Your task to perform on an android device: toggle wifi Image 0: 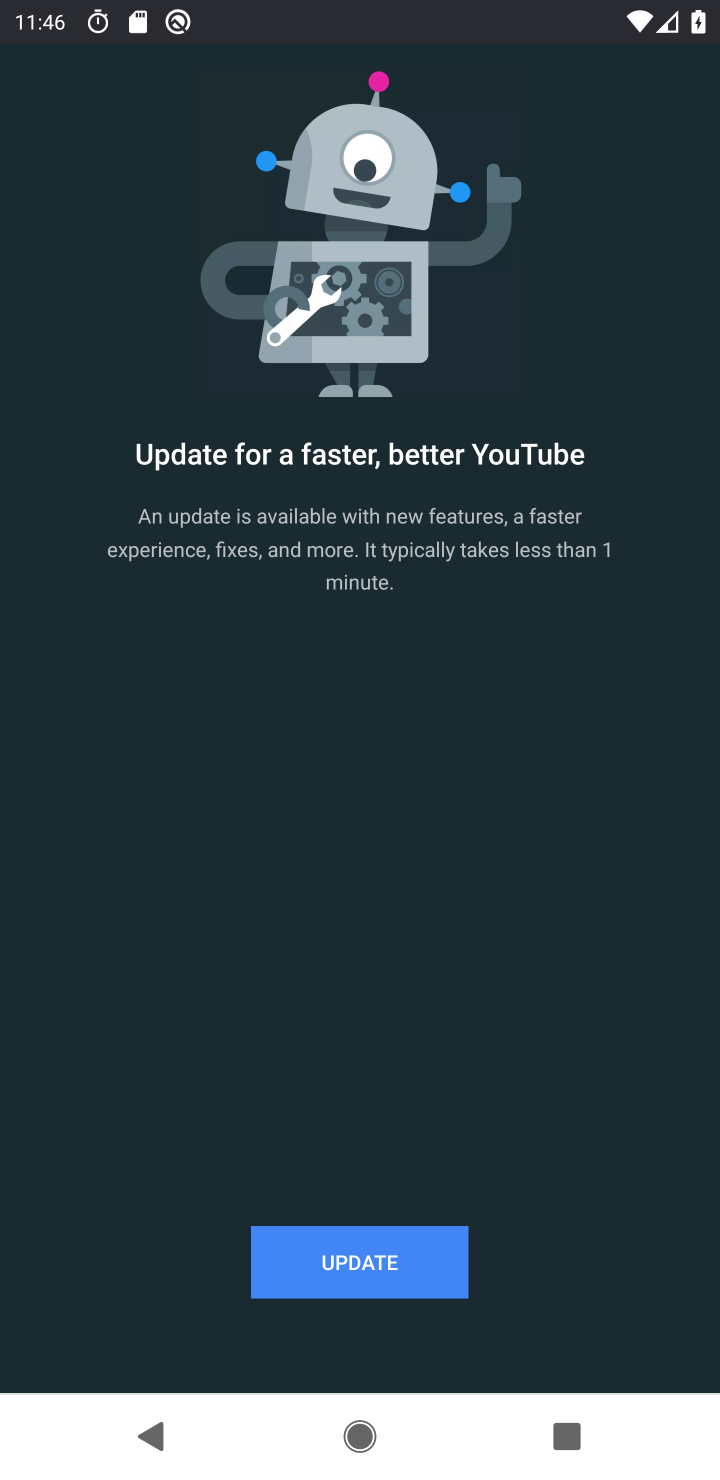
Step 0: press home button
Your task to perform on an android device: toggle wifi Image 1: 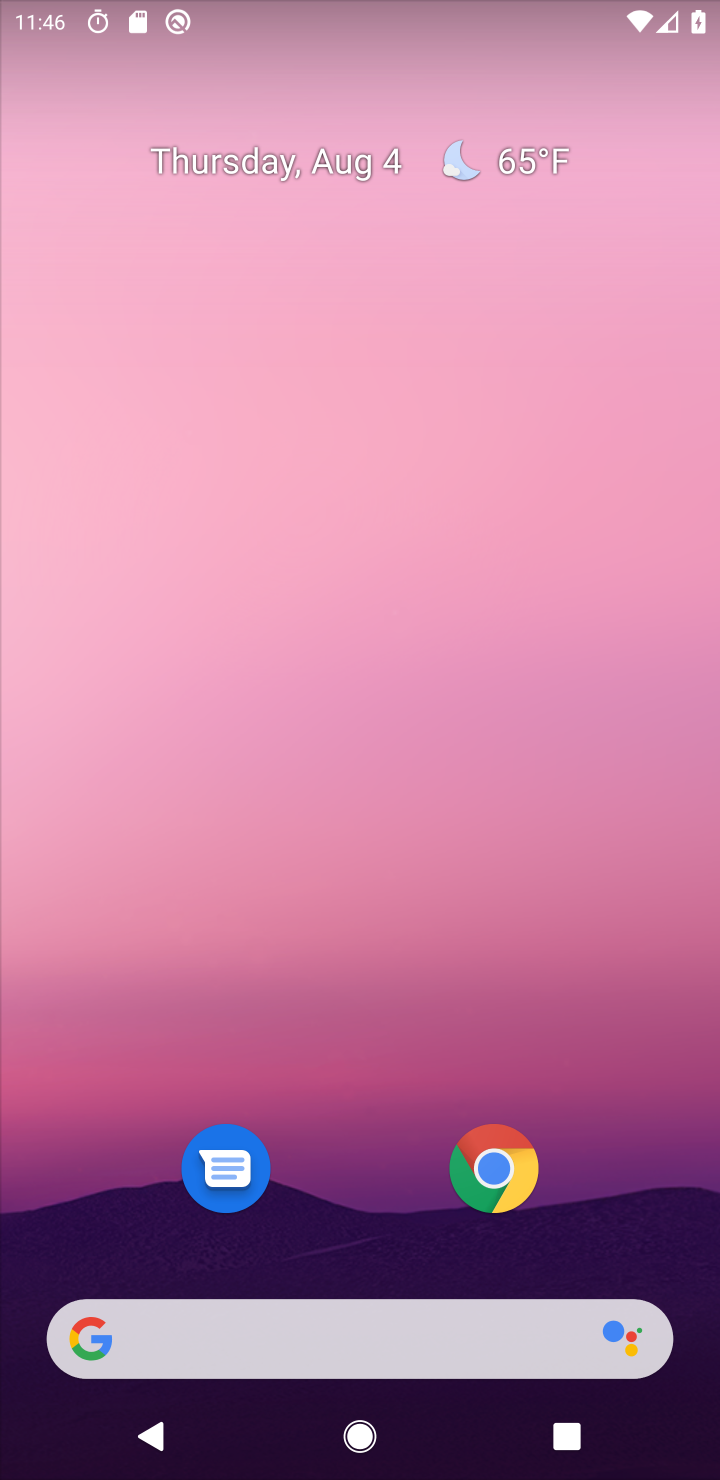
Step 1: drag from (358, 1225) to (407, 0)
Your task to perform on an android device: toggle wifi Image 2: 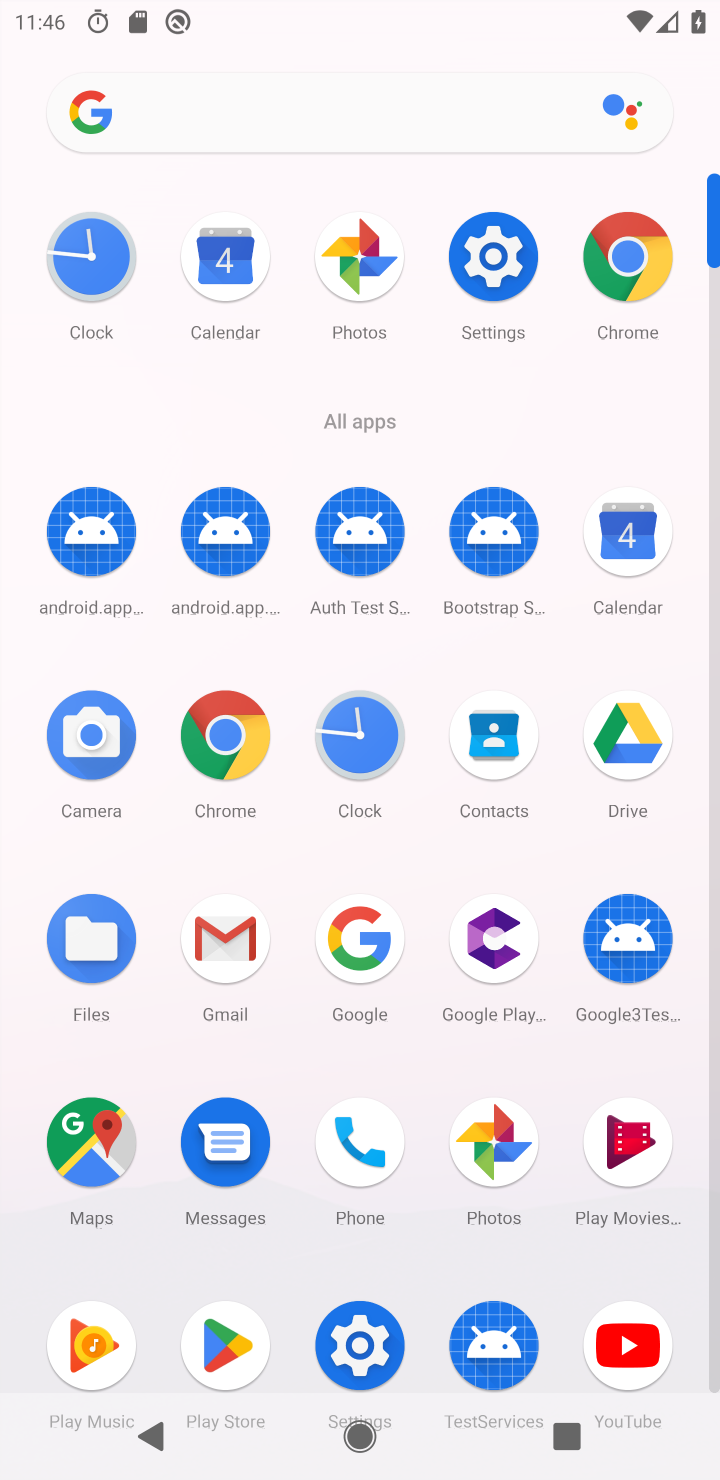
Step 2: click (497, 311)
Your task to perform on an android device: toggle wifi Image 3: 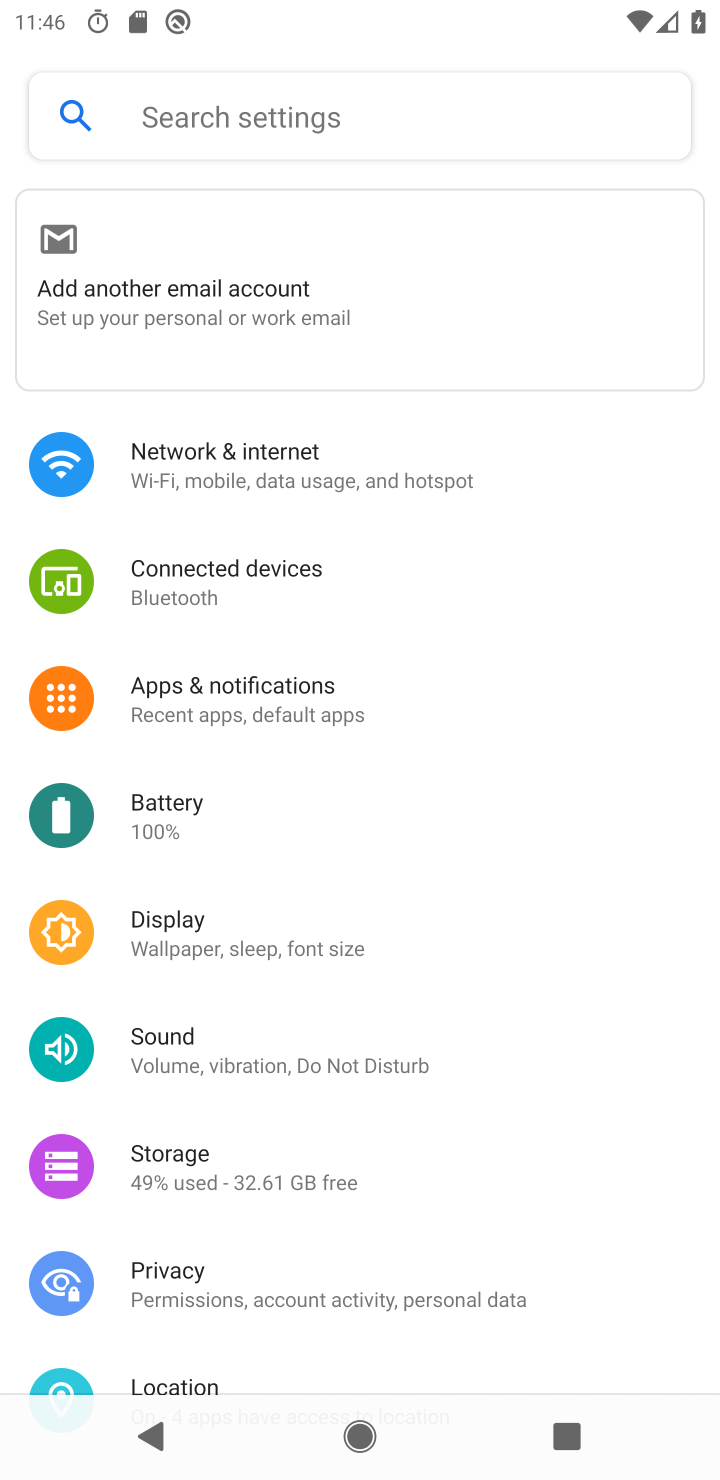
Step 3: click (246, 455)
Your task to perform on an android device: toggle wifi Image 4: 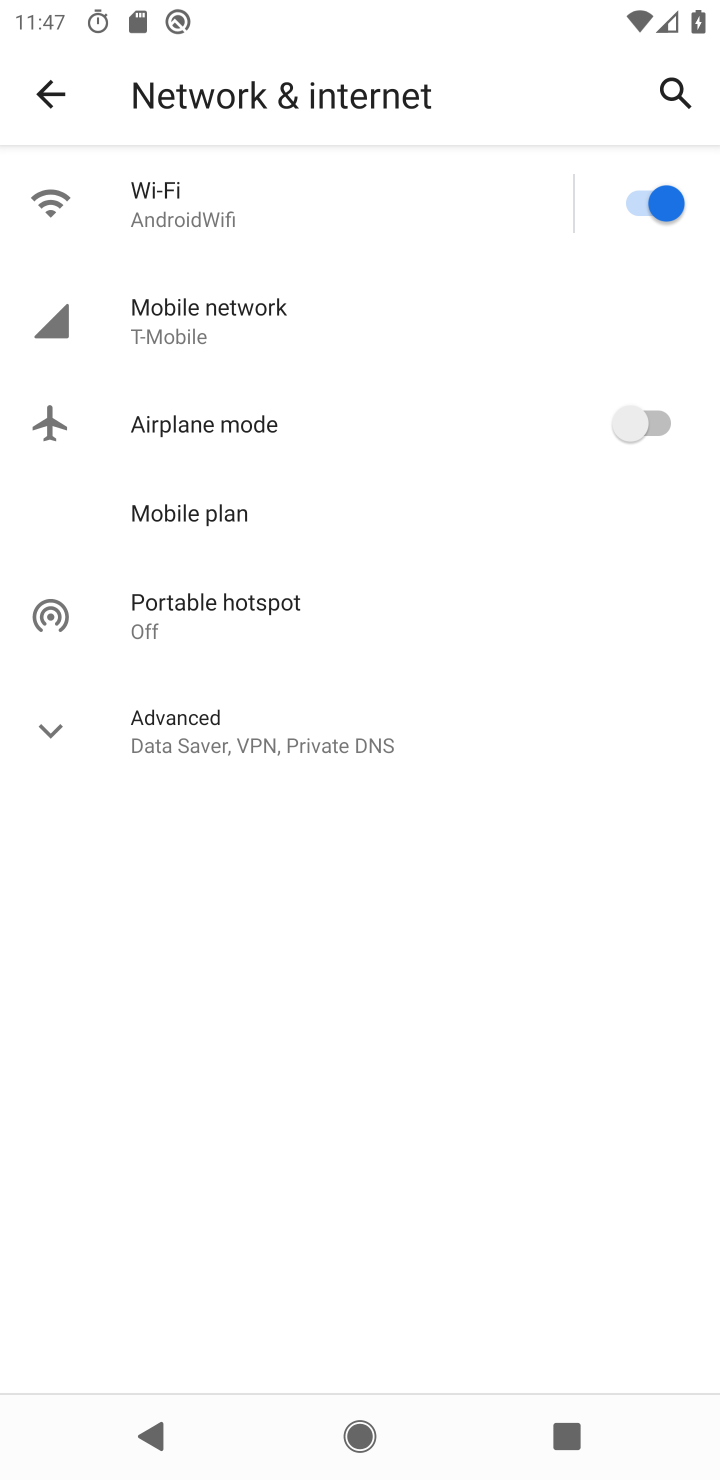
Step 4: click (619, 195)
Your task to perform on an android device: toggle wifi Image 5: 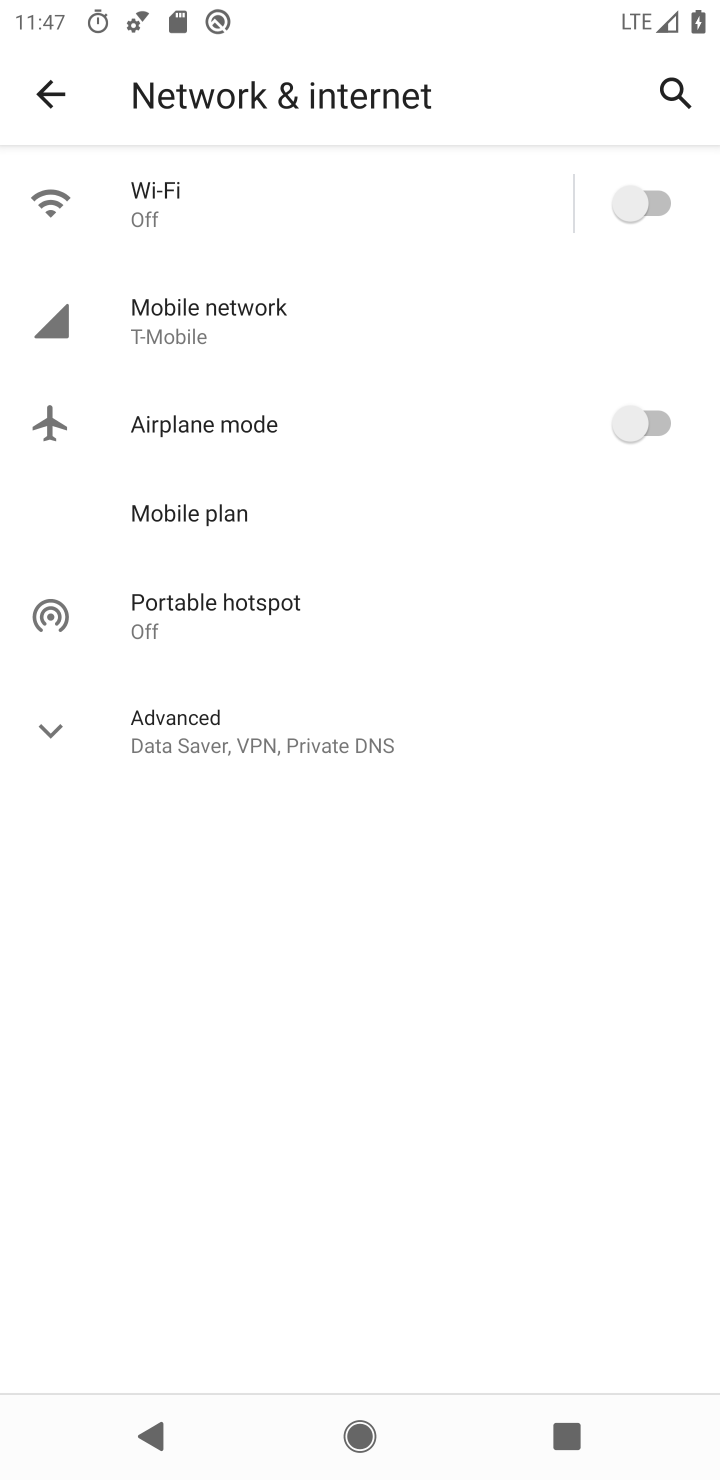
Step 5: task complete